Your task to perform on an android device: see tabs open on other devices in the chrome app Image 0: 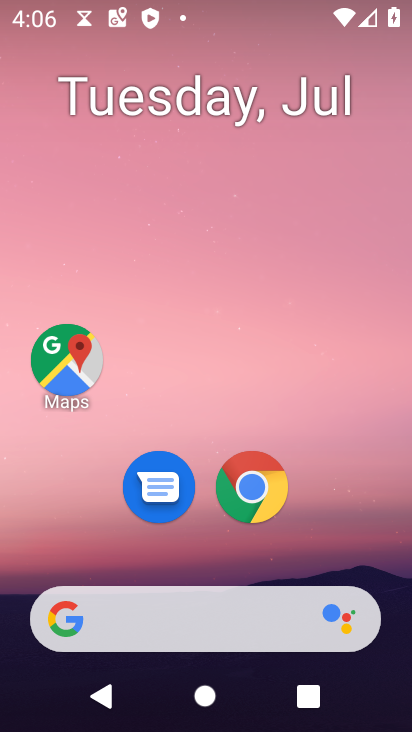
Step 0: drag from (167, 551) to (197, 1)
Your task to perform on an android device: see tabs open on other devices in the chrome app Image 1: 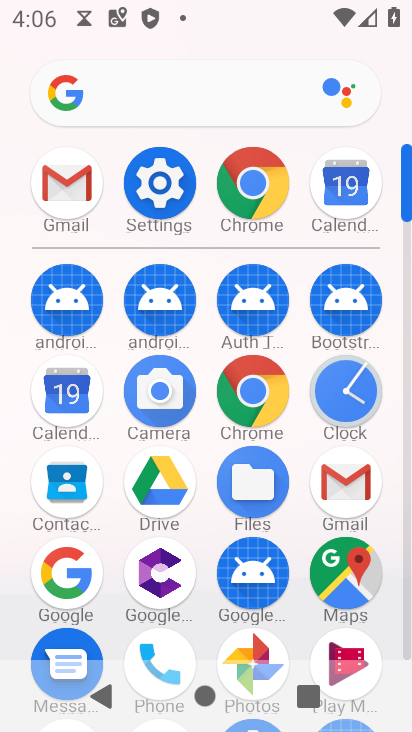
Step 1: click (263, 181)
Your task to perform on an android device: see tabs open on other devices in the chrome app Image 2: 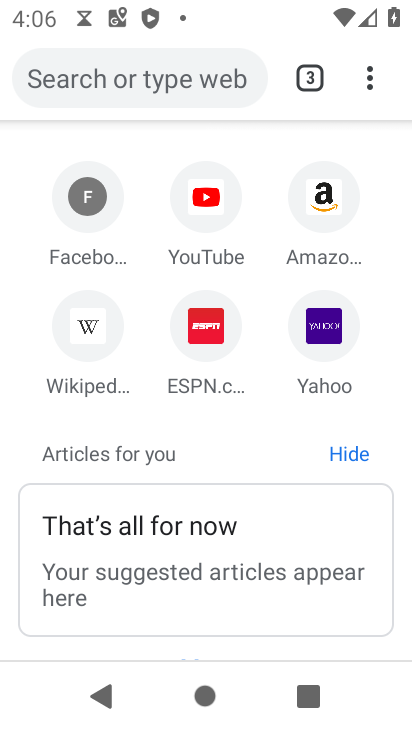
Step 2: drag from (367, 69) to (101, 536)
Your task to perform on an android device: see tabs open on other devices in the chrome app Image 3: 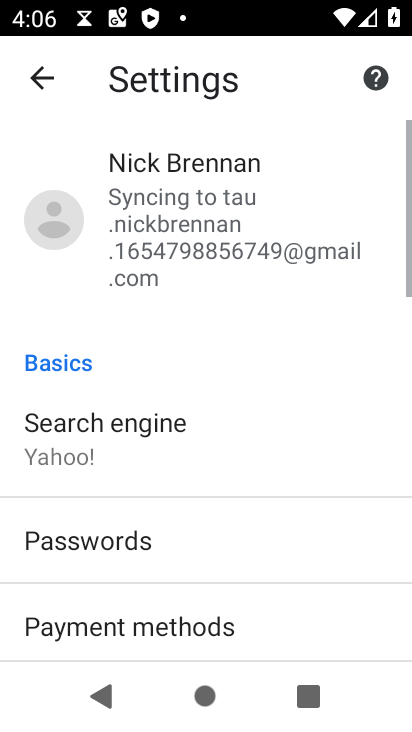
Step 3: click (24, 73)
Your task to perform on an android device: see tabs open on other devices in the chrome app Image 4: 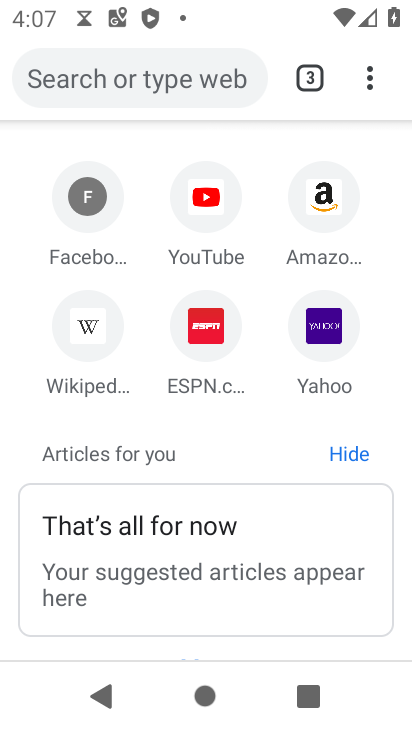
Step 4: task complete